Your task to perform on an android device: turn off airplane mode Image 0: 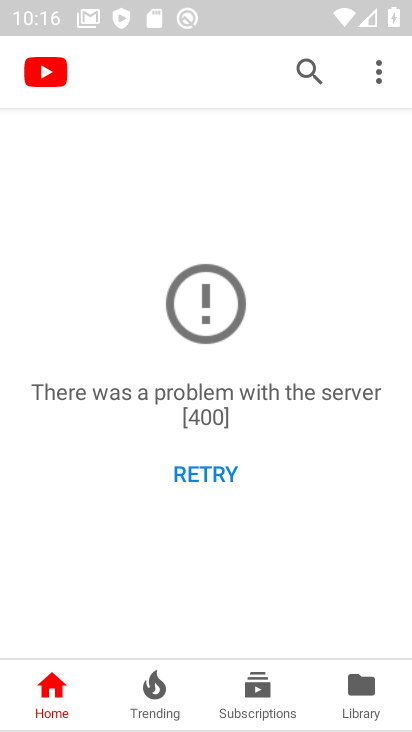
Step 0: drag from (373, 582) to (367, 457)
Your task to perform on an android device: turn off airplane mode Image 1: 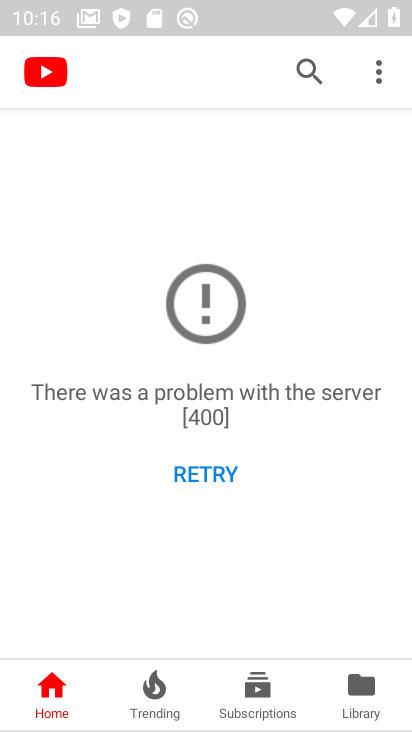
Step 1: task complete